Your task to perform on an android device: Show me recent news Image 0: 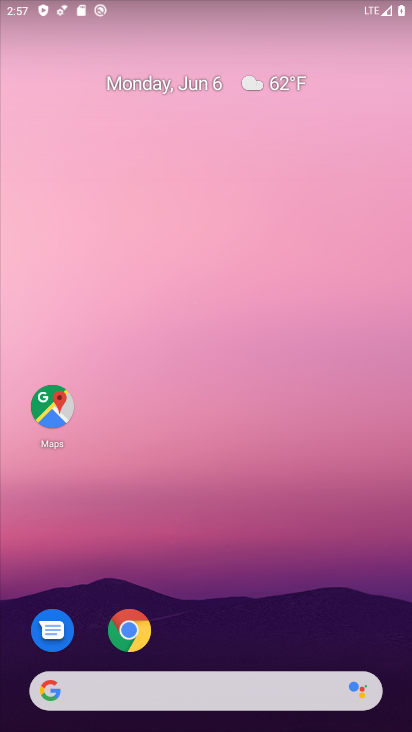
Step 0: click (140, 639)
Your task to perform on an android device: Show me recent news Image 1: 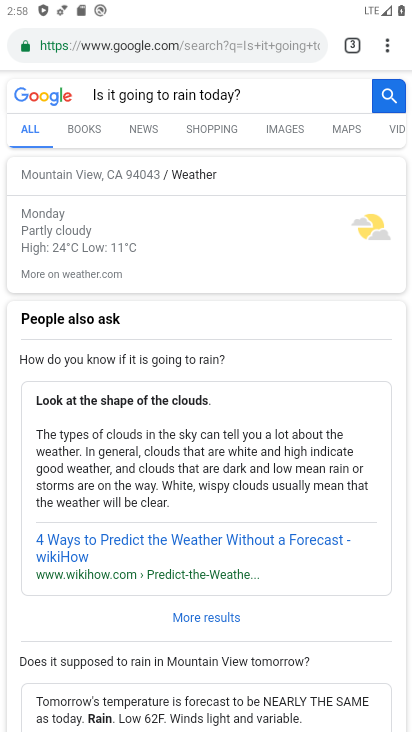
Step 1: click (161, 51)
Your task to perform on an android device: Show me recent news Image 2: 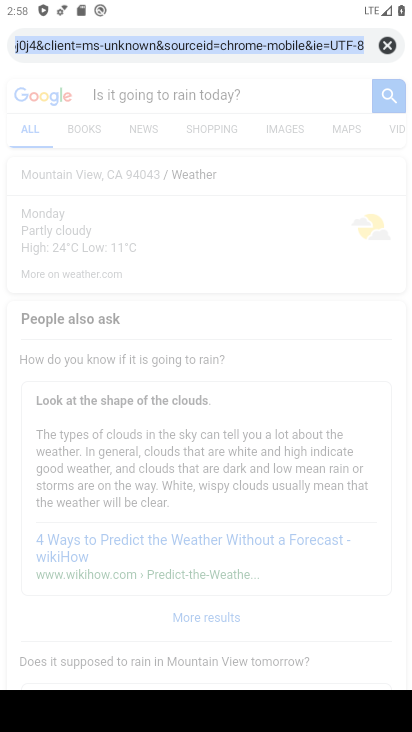
Step 2: type " news"
Your task to perform on an android device: Show me recent news Image 3: 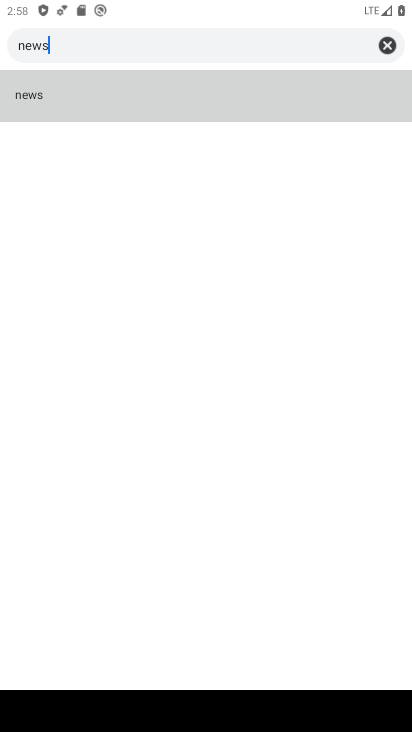
Step 3: type ""
Your task to perform on an android device: Show me recent news Image 4: 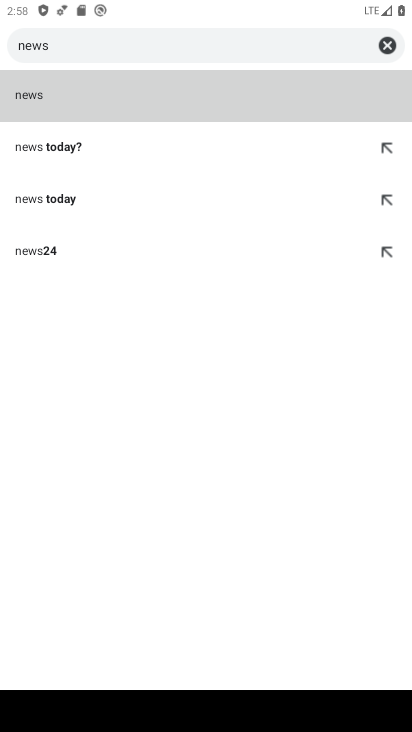
Step 4: click (93, 78)
Your task to perform on an android device: Show me recent news Image 5: 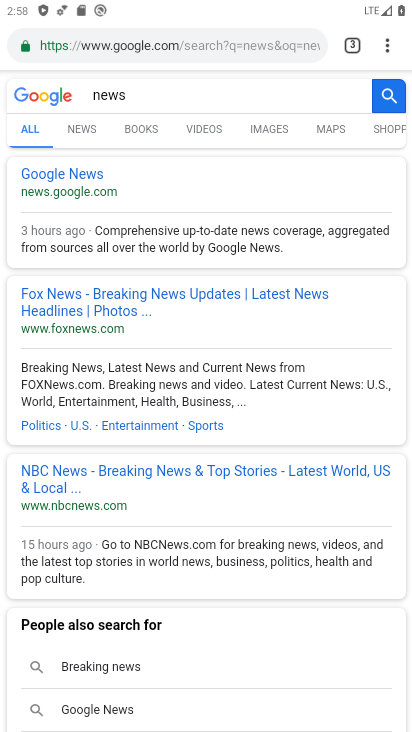
Step 5: task complete